Your task to perform on an android device: see tabs open on other devices in the chrome app Image 0: 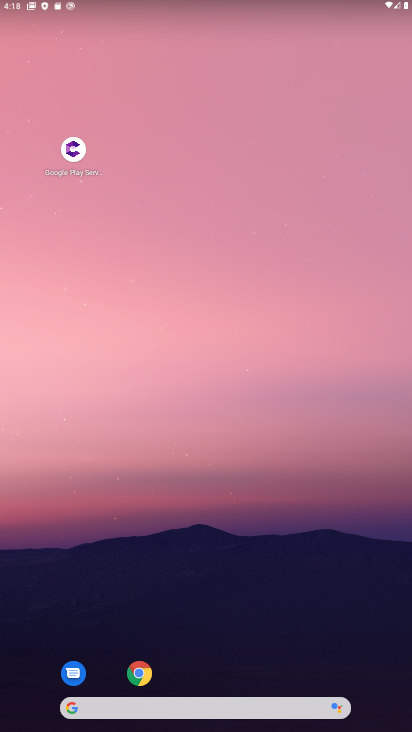
Step 0: click (145, 675)
Your task to perform on an android device: see tabs open on other devices in the chrome app Image 1: 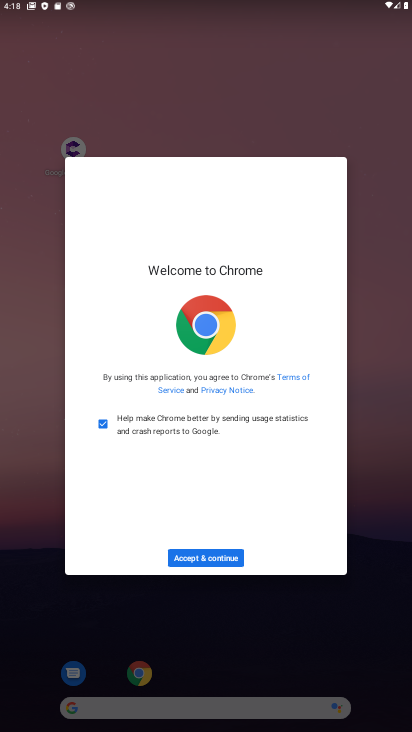
Step 1: click (230, 557)
Your task to perform on an android device: see tabs open on other devices in the chrome app Image 2: 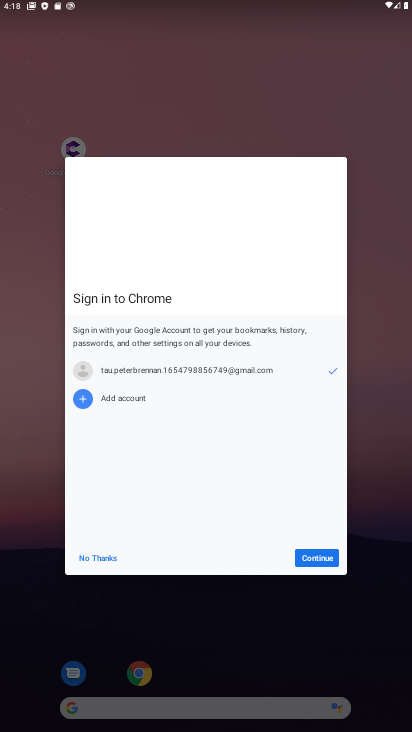
Step 2: click (305, 562)
Your task to perform on an android device: see tabs open on other devices in the chrome app Image 3: 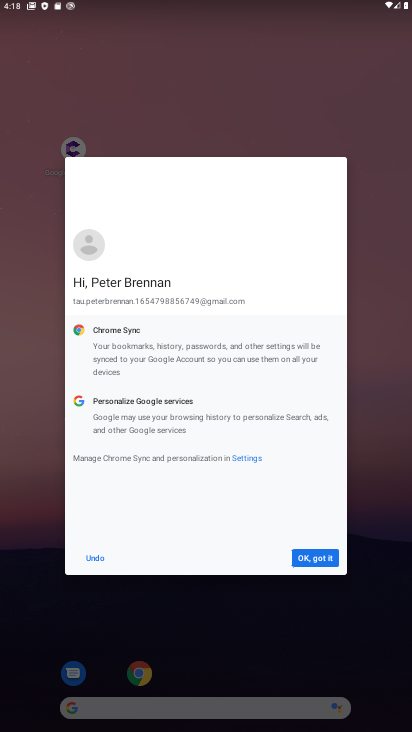
Step 3: click (305, 562)
Your task to perform on an android device: see tabs open on other devices in the chrome app Image 4: 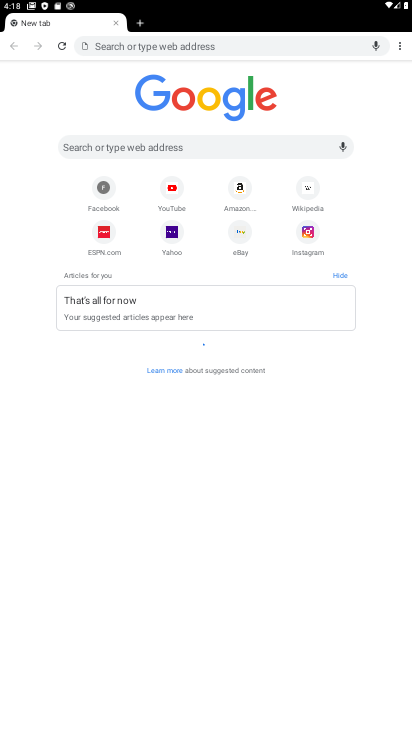
Step 4: click (399, 47)
Your task to perform on an android device: see tabs open on other devices in the chrome app Image 5: 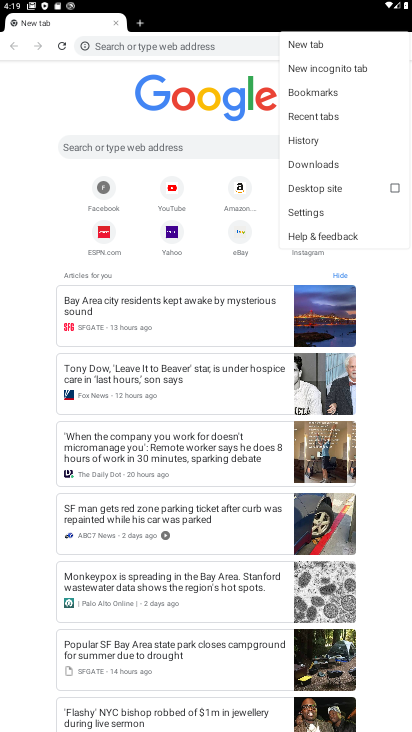
Step 5: click (305, 117)
Your task to perform on an android device: see tabs open on other devices in the chrome app Image 6: 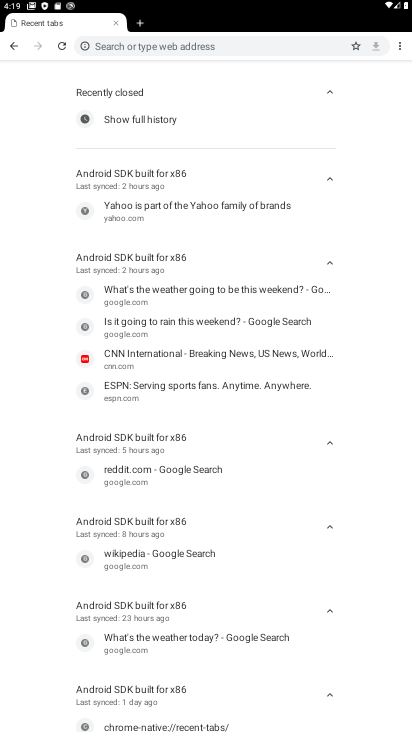
Step 6: task complete